Your task to perform on an android device: Go to privacy settings Image 0: 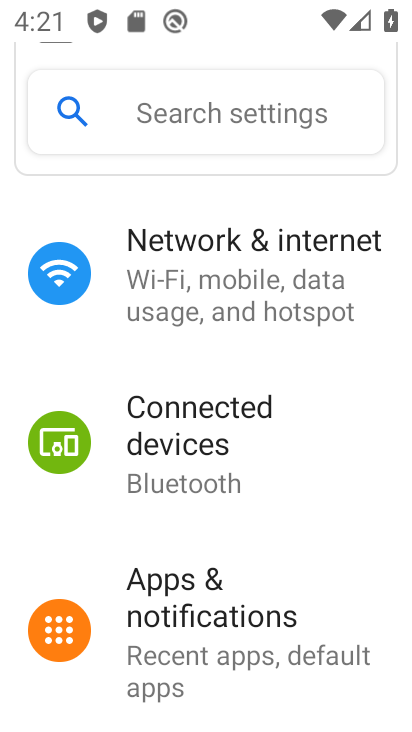
Step 0: drag from (234, 443) to (314, 117)
Your task to perform on an android device: Go to privacy settings Image 1: 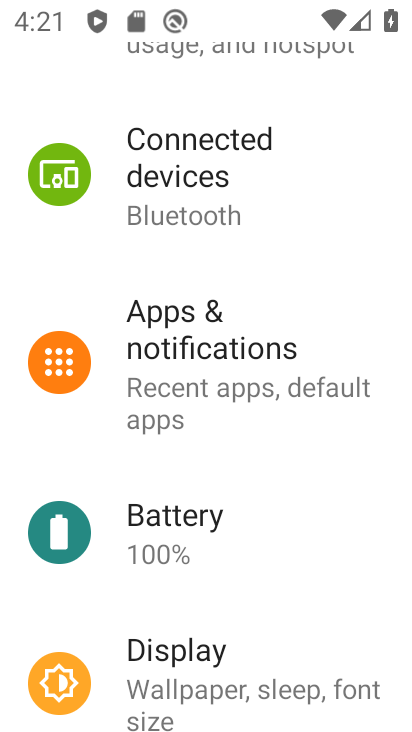
Step 1: drag from (226, 510) to (286, 185)
Your task to perform on an android device: Go to privacy settings Image 2: 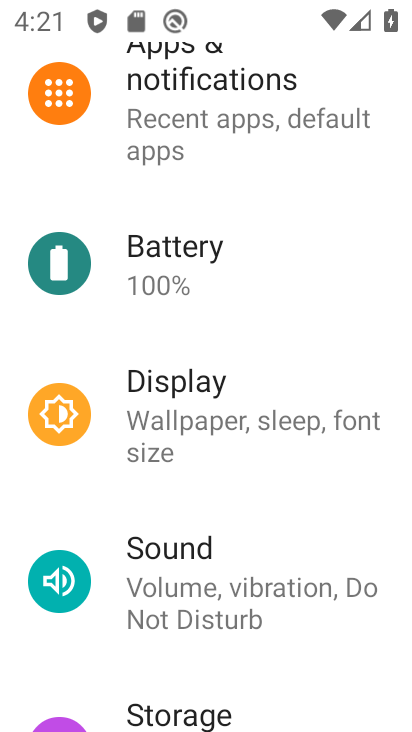
Step 2: drag from (278, 181) to (310, 89)
Your task to perform on an android device: Go to privacy settings Image 3: 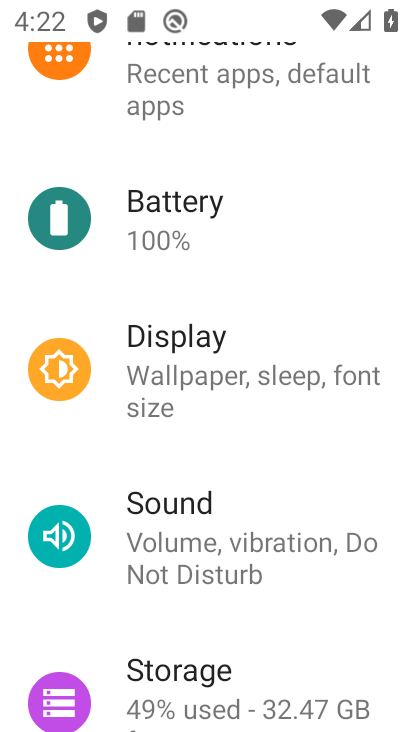
Step 3: drag from (189, 543) to (253, 164)
Your task to perform on an android device: Go to privacy settings Image 4: 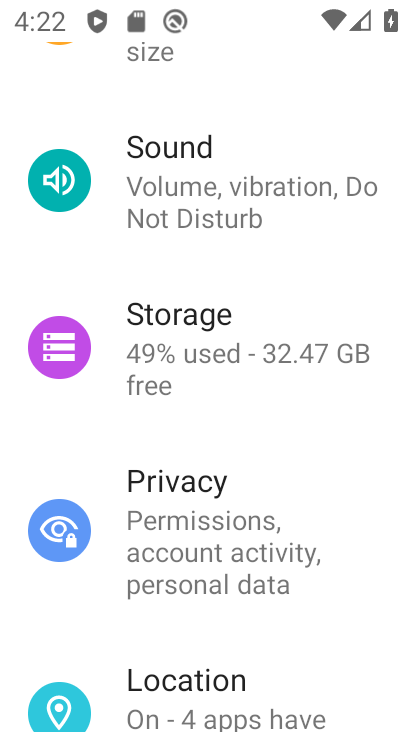
Step 4: drag from (162, 657) to (210, 469)
Your task to perform on an android device: Go to privacy settings Image 5: 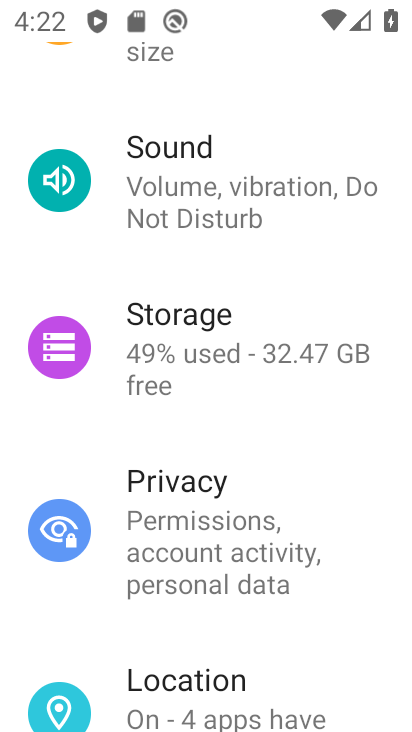
Step 5: click (169, 483)
Your task to perform on an android device: Go to privacy settings Image 6: 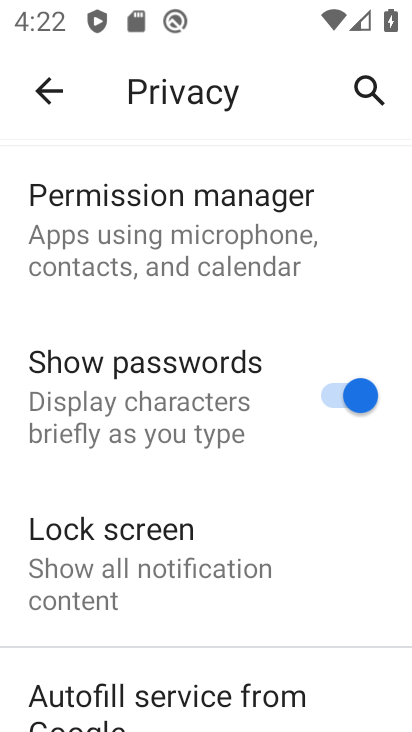
Step 6: task complete